Your task to perform on an android device: Open Google Maps Image 0: 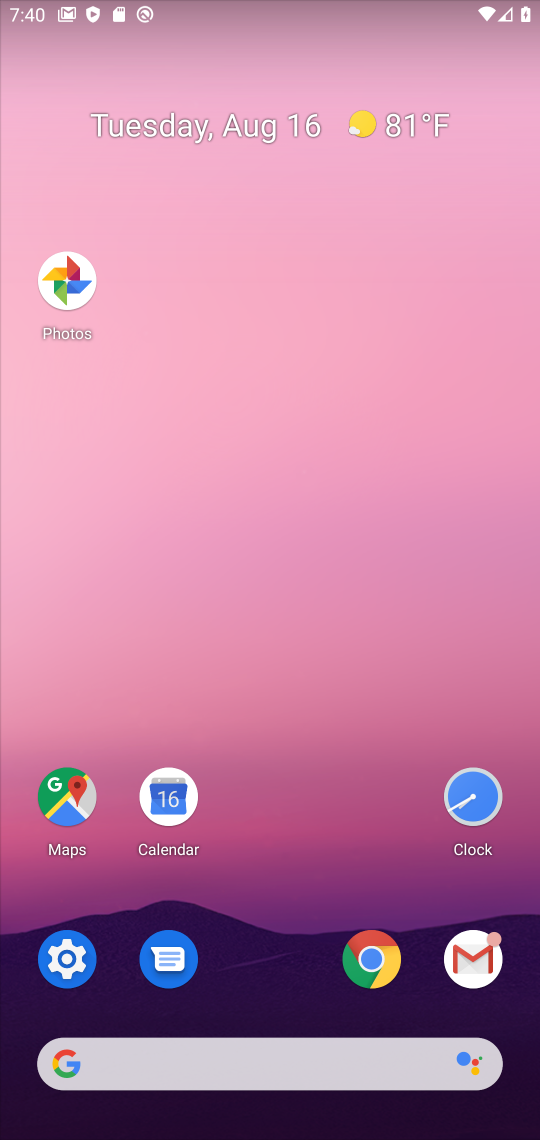
Step 0: click (53, 794)
Your task to perform on an android device: Open Google Maps Image 1: 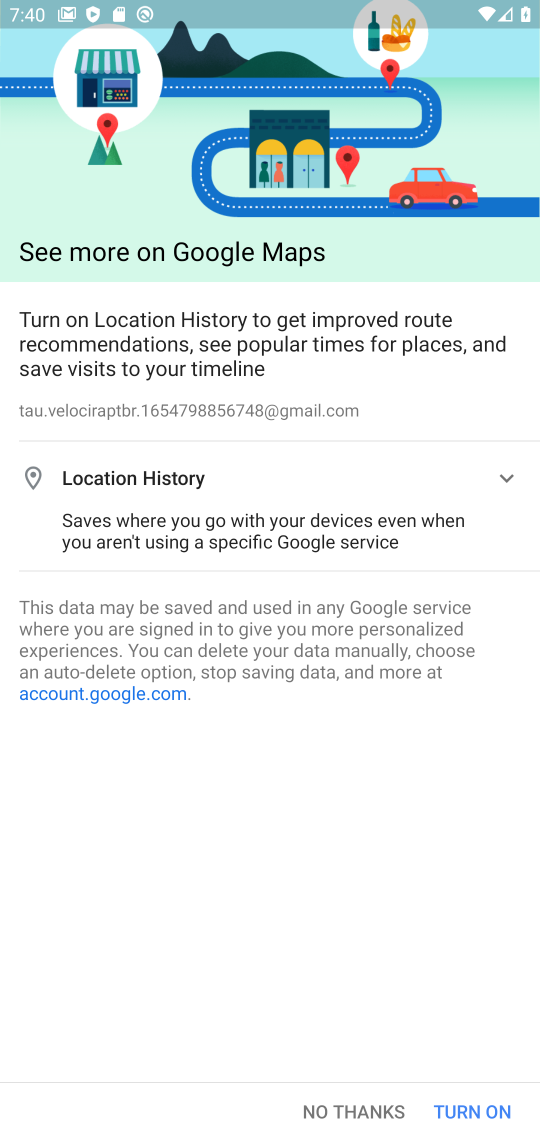
Step 1: click (480, 1106)
Your task to perform on an android device: Open Google Maps Image 2: 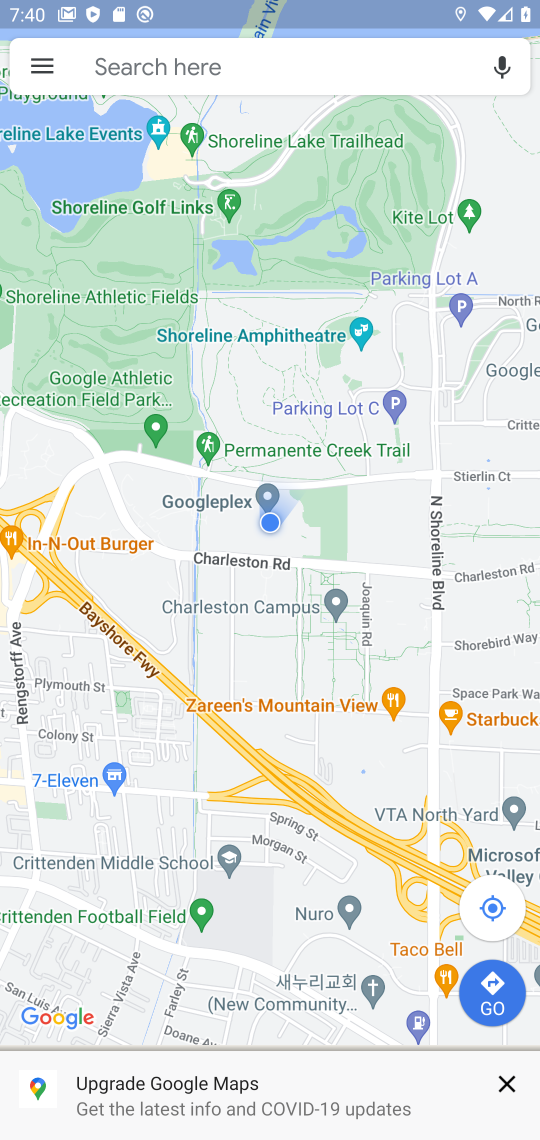
Step 2: task complete